Your task to perform on an android device: Search for the ikea sjalv lamp Image 0: 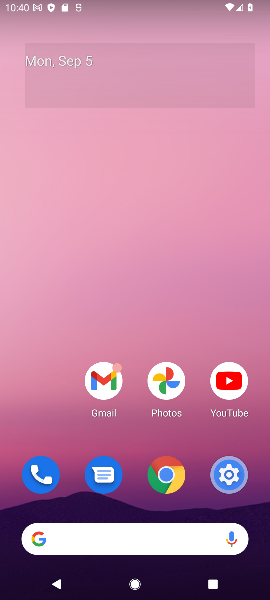
Step 0: click (118, 542)
Your task to perform on an android device: Search for the ikea sjalv lamp Image 1: 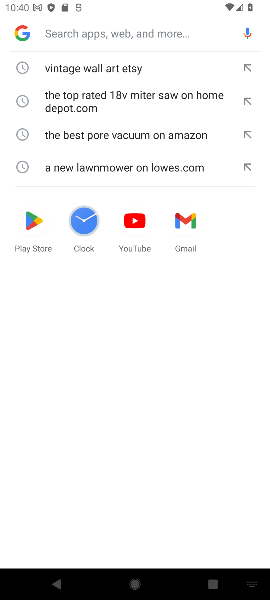
Step 1: type "the ikea sjalv lamp"
Your task to perform on an android device: Search for the ikea sjalv lamp Image 2: 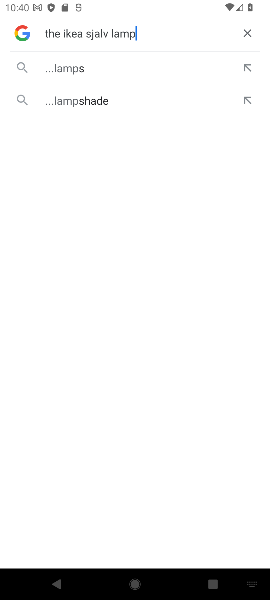
Step 2: click (66, 75)
Your task to perform on an android device: Search for the ikea sjalv lamp Image 3: 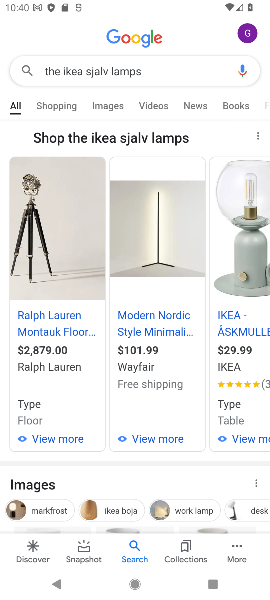
Step 3: task complete